Your task to perform on an android device: Open Google Chrome and click the shortcut for Amazon.com Image 0: 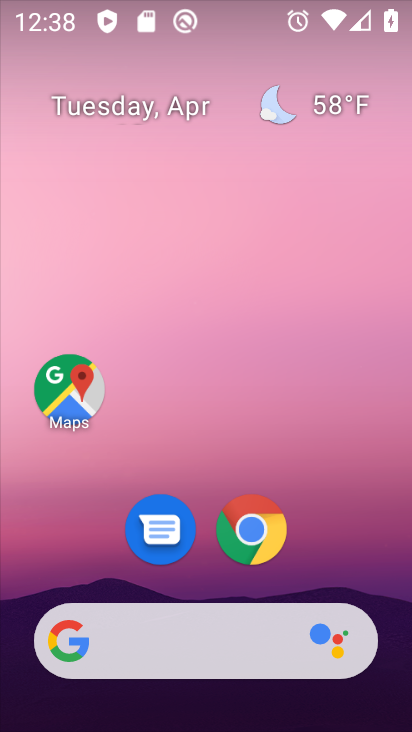
Step 0: drag from (385, 609) to (277, 80)
Your task to perform on an android device: Open Google Chrome and click the shortcut for Amazon.com Image 1: 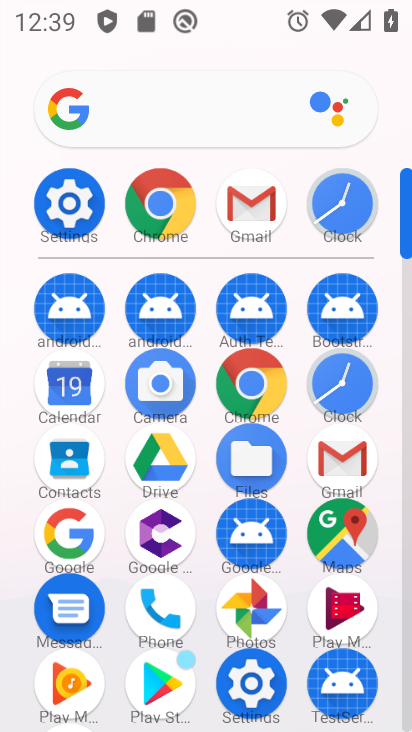
Step 1: click (248, 388)
Your task to perform on an android device: Open Google Chrome and click the shortcut for Amazon.com Image 2: 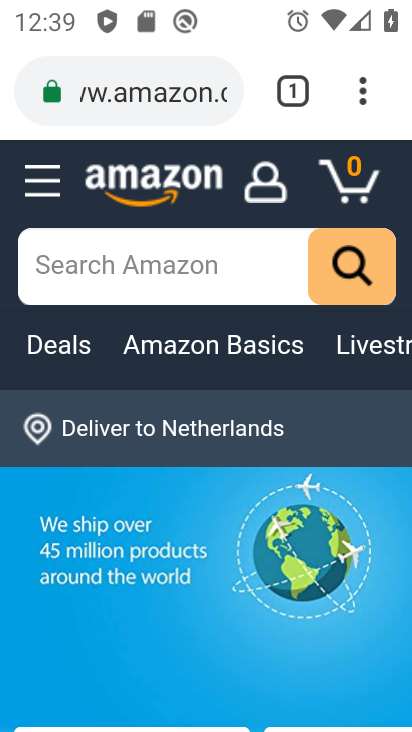
Step 2: task complete